Your task to perform on an android device: Show me popular games on the Play Store Image 0: 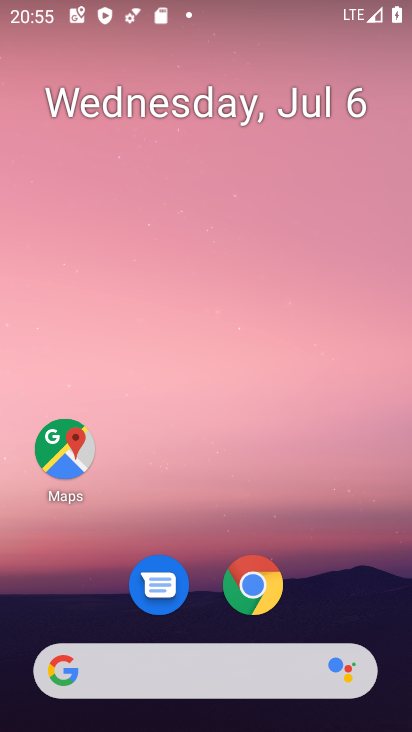
Step 0: drag from (190, 464) to (196, 35)
Your task to perform on an android device: Show me popular games on the Play Store Image 1: 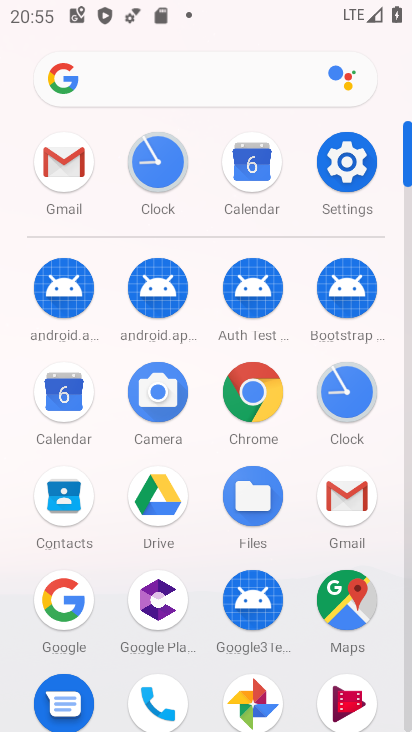
Step 1: drag from (198, 509) to (178, 255)
Your task to perform on an android device: Show me popular games on the Play Store Image 2: 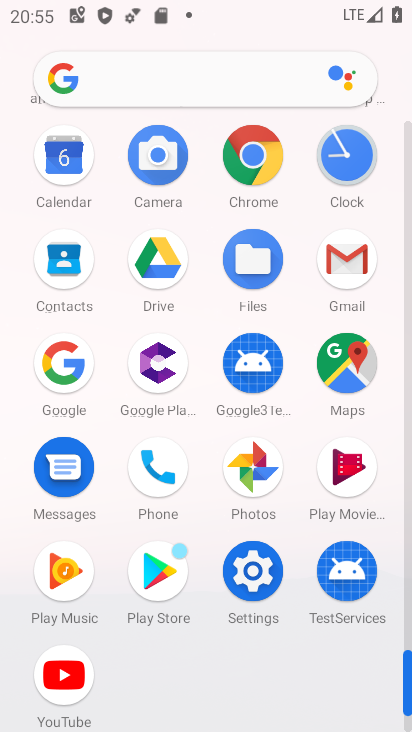
Step 2: click (154, 574)
Your task to perform on an android device: Show me popular games on the Play Store Image 3: 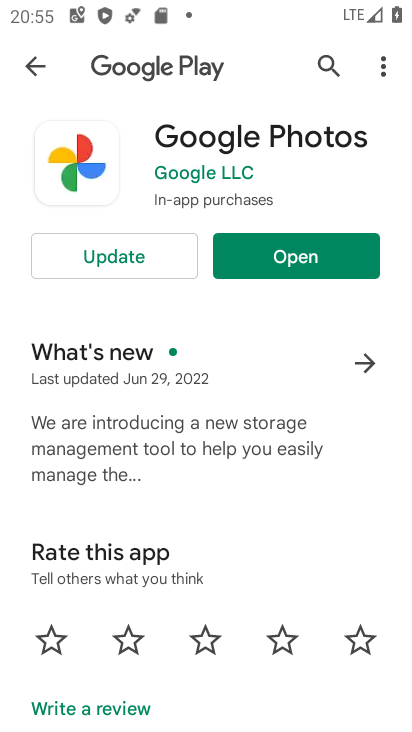
Step 3: click (326, 261)
Your task to perform on an android device: Show me popular games on the Play Store Image 4: 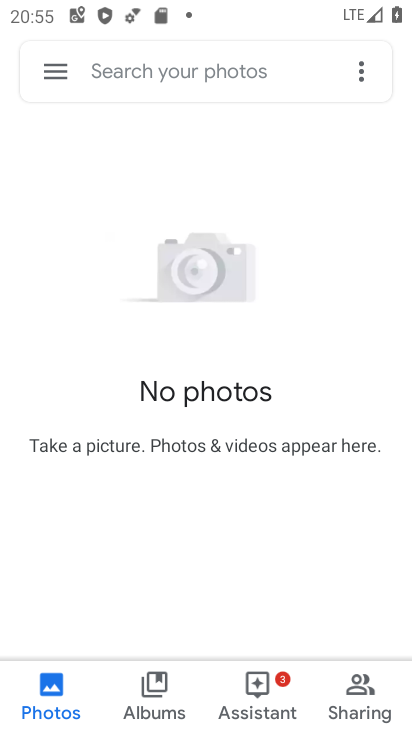
Step 4: press home button
Your task to perform on an android device: Show me popular games on the Play Store Image 5: 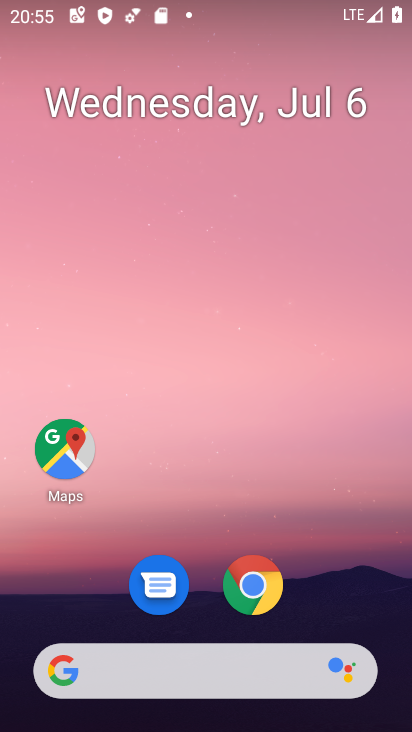
Step 5: drag from (186, 532) to (258, 43)
Your task to perform on an android device: Show me popular games on the Play Store Image 6: 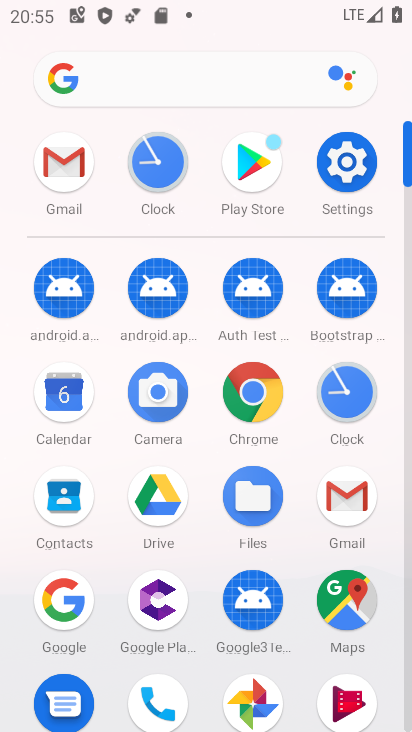
Step 6: click (263, 159)
Your task to perform on an android device: Show me popular games on the Play Store Image 7: 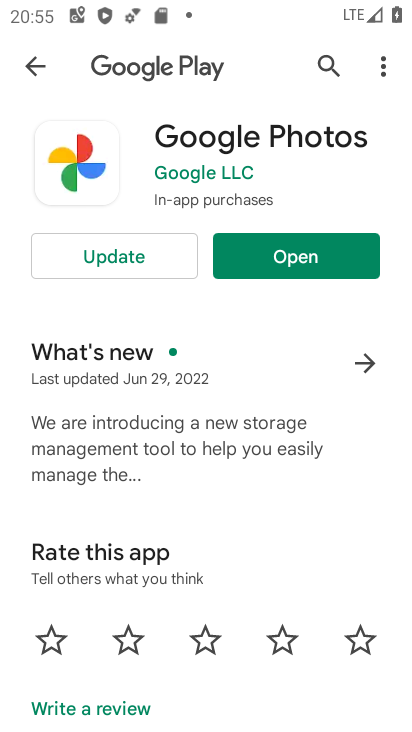
Step 7: click (28, 59)
Your task to perform on an android device: Show me popular games on the Play Store Image 8: 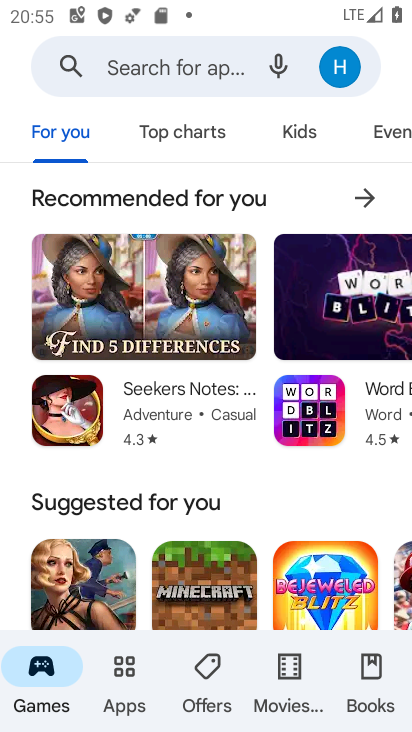
Step 8: drag from (240, 501) to (247, 180)
Your task to perform on an android device: Show me popular games on the Play Store Image 9: 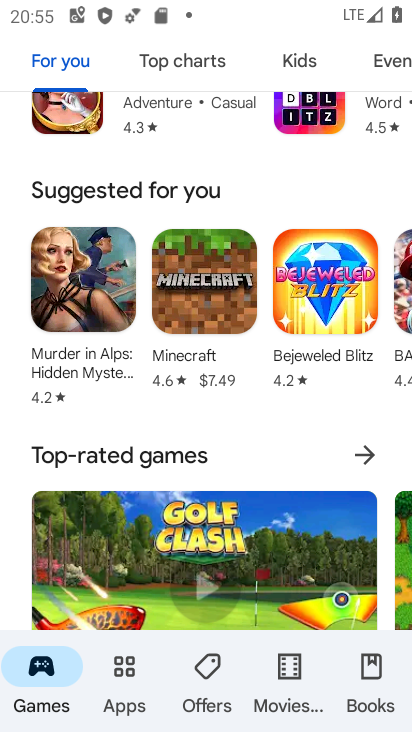
Step 9: click (367, 455)
Your task to perform on an android device: Show me popular games on the Play Store Image 10: 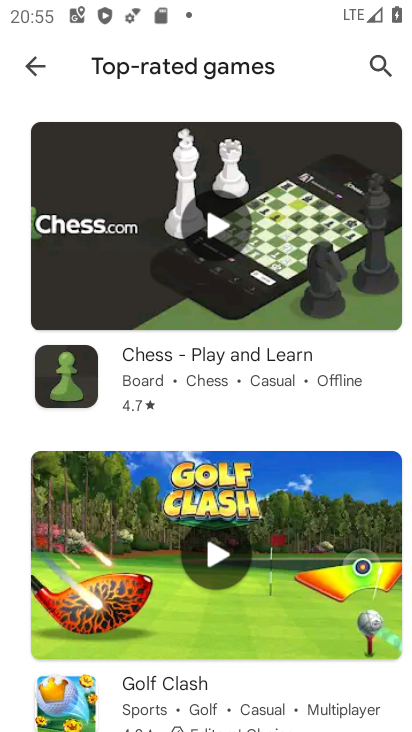
Step 10: task complete